Your task to perform on an android device: turn on priority inbox in the gmail app Image 0: 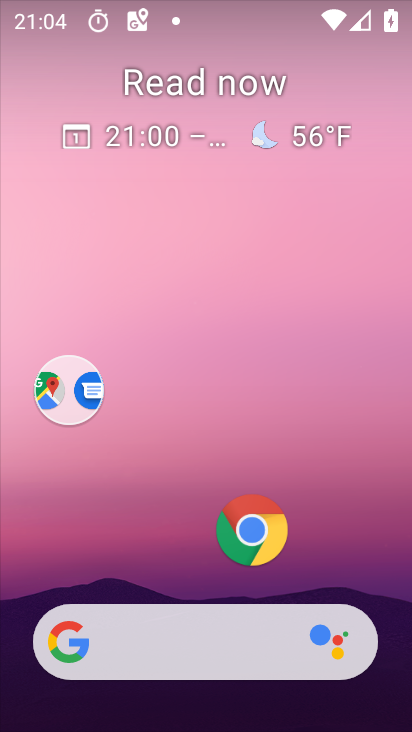
Step 0: drag from (168, 546) to (168, 56)
Your task to perform on an android device: turn on priority inbox in the gmail app Image 1: 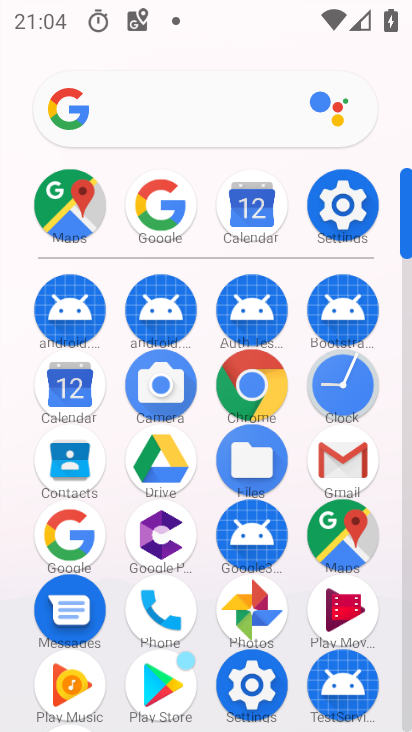
Step 1: click (351, 457)
Your task to perform on an android device: turn on priority inbox in the gmail app Image 2: 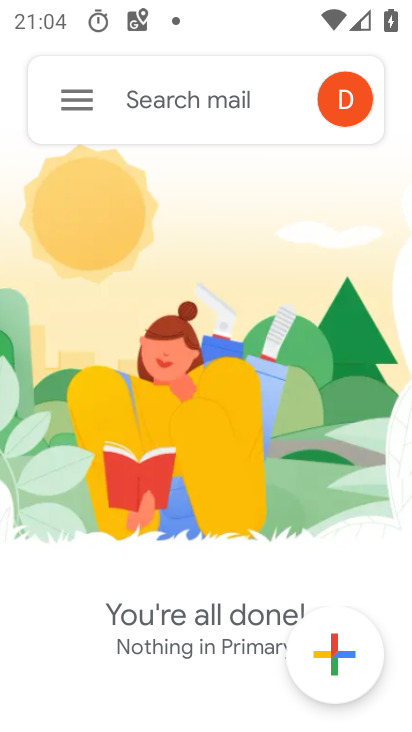
Step 2: click (89, 103)
Your task to perform on an android device: turn on priority inbox in the gmail app Image 3: 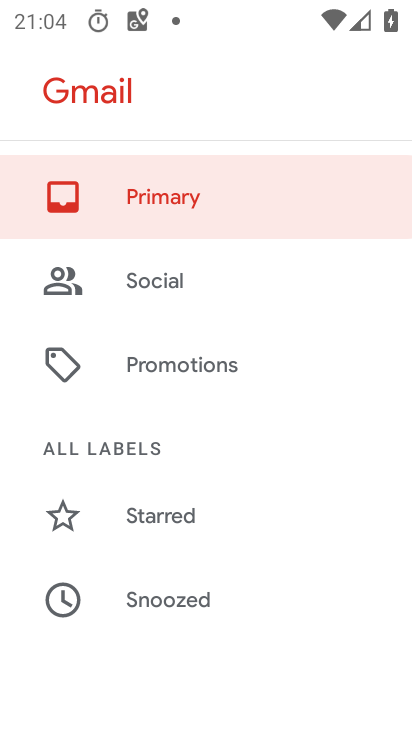
Step 3: drag from (231, 487) to (262, 96)
Your task to perform on an android device: turn on priority inbox in the gmail app Image 4: 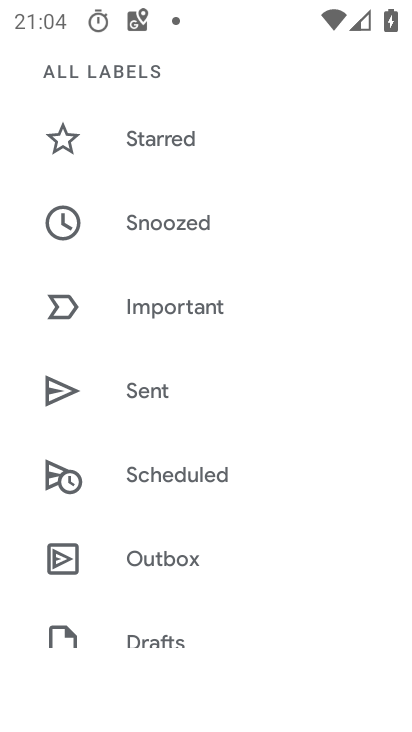
Step 4: drag from (257, 566) to (206, 24)
Your task to perform on an android device: turn on priority inbox in the gmail app Image 5: 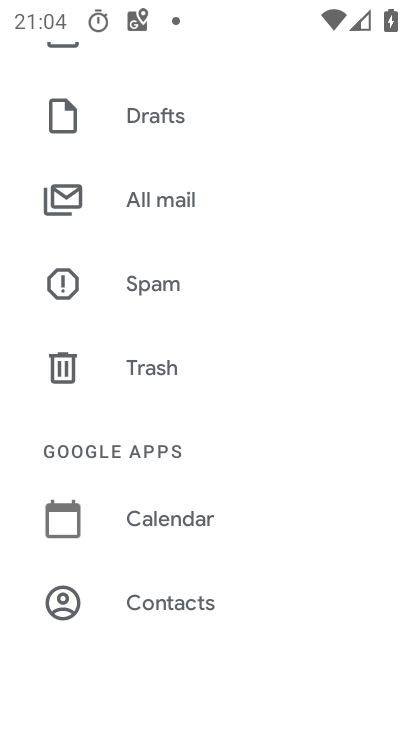
Step 5: drag from (204, 666) to (212, 361)
Your task to perform on an android device: turn on priority inbox in the gmail app Image 6: 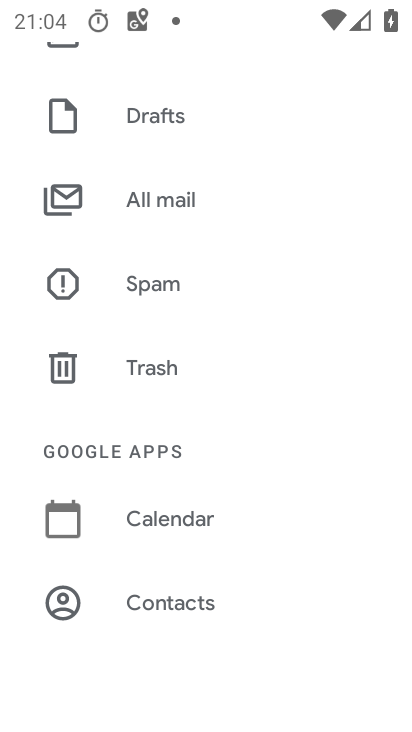
Step 6: drag from (228, 539) to (207, 152)
Your task to perform on an android device: turn on priority inbox in the gmail app Image 7: 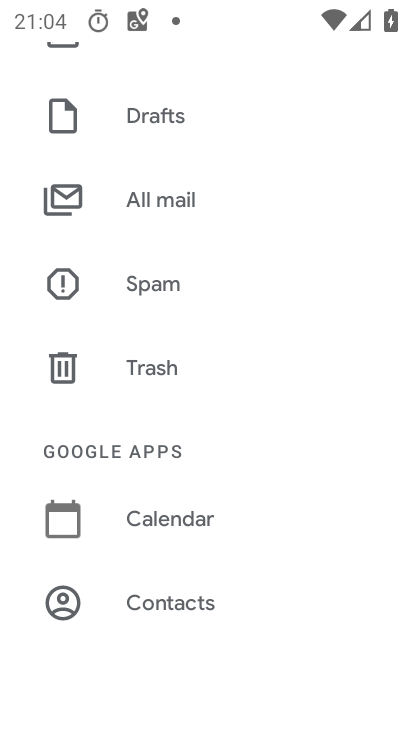
Step 7: drag from (176, 522) to (181, 213)
Your task to perform on an android device: turn on priority inbox in the gmail app Image 8: 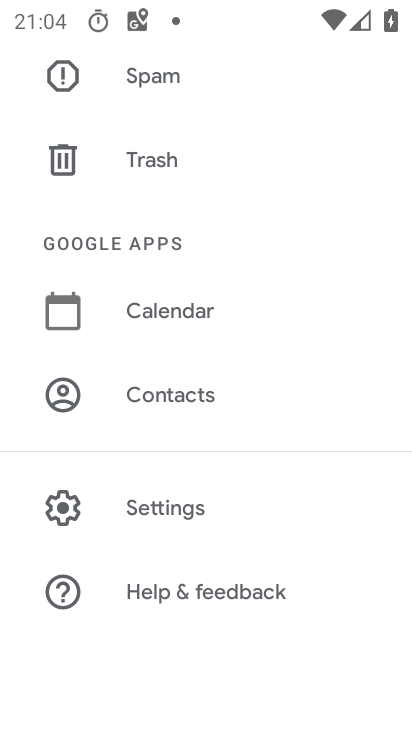
Step 8: click (171, 510)
Your task to perform on an android device: turn on priority inbox in the gmail app Image 9: 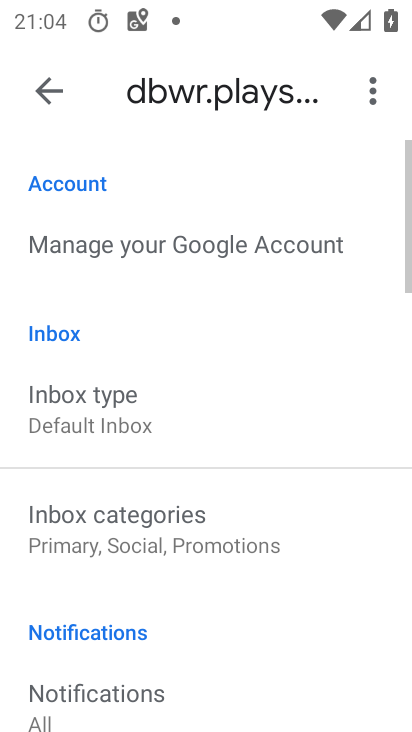
Step 9: click (135, 416)
Your task to perform on an android device: turn on priority inbox in the gmail app Image 10: 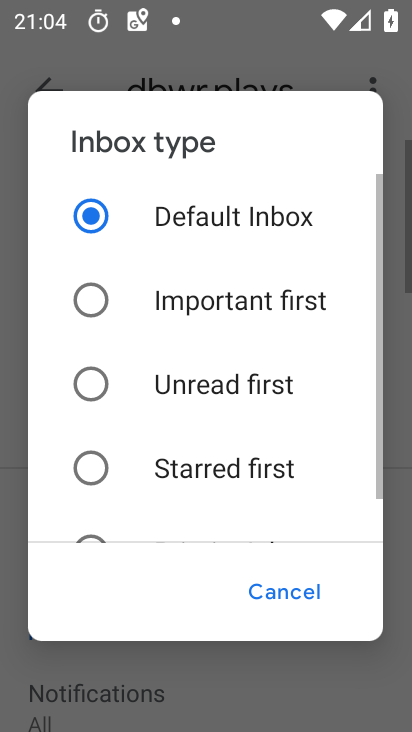
Step 10: drag from (96, 479) to (103, 174)
Your task to perform on an android device: turn on priority inbox in the gmail app Image 11: 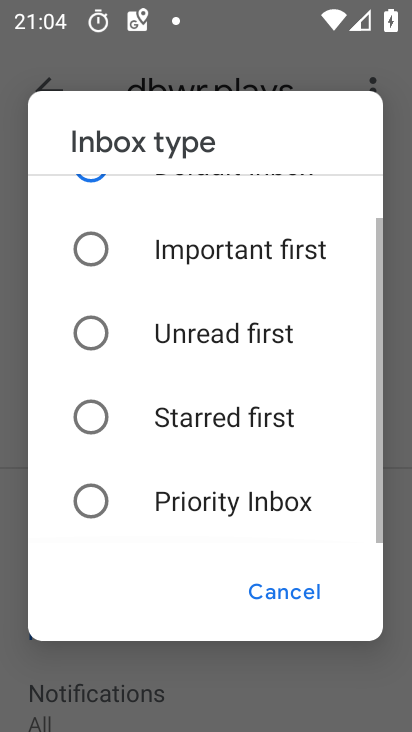
Step 11: click (82, 514)
Your task to perform on an android device: turn on priority inbox in the gmail app Image 12: 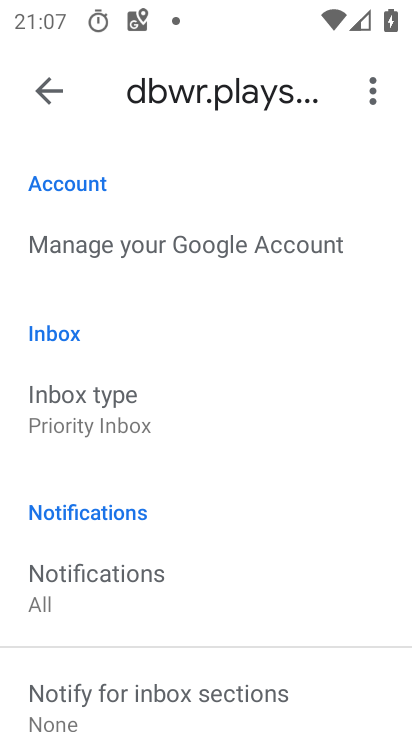
Step 12: task complete